Your task to perform on an android device: delete browsing data in the chrome app Image 0: 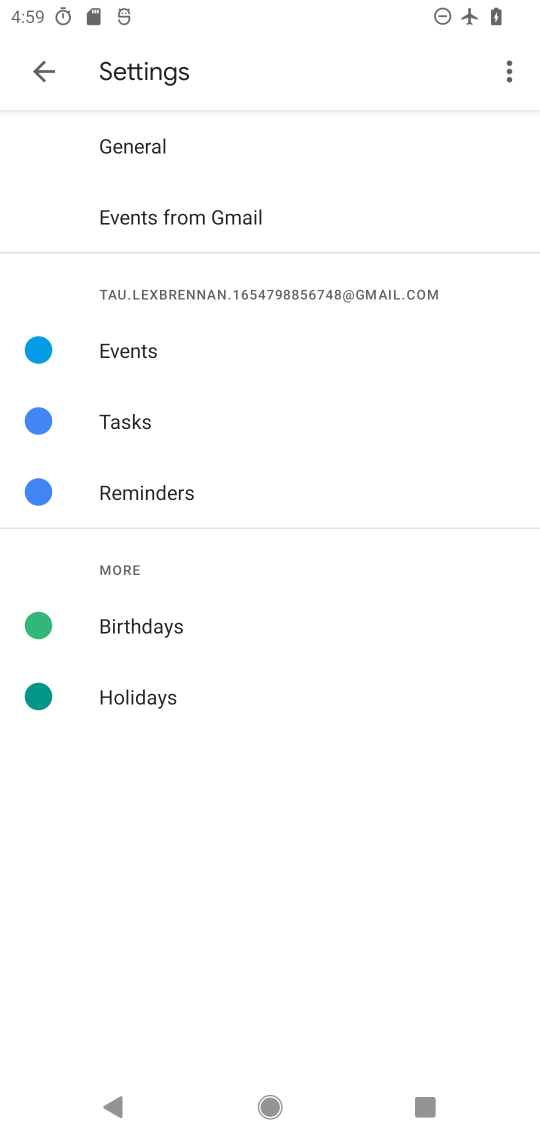
Step 0: press home button
Your task to perform on an android device: delete browsing data in the chrome app Image 1: 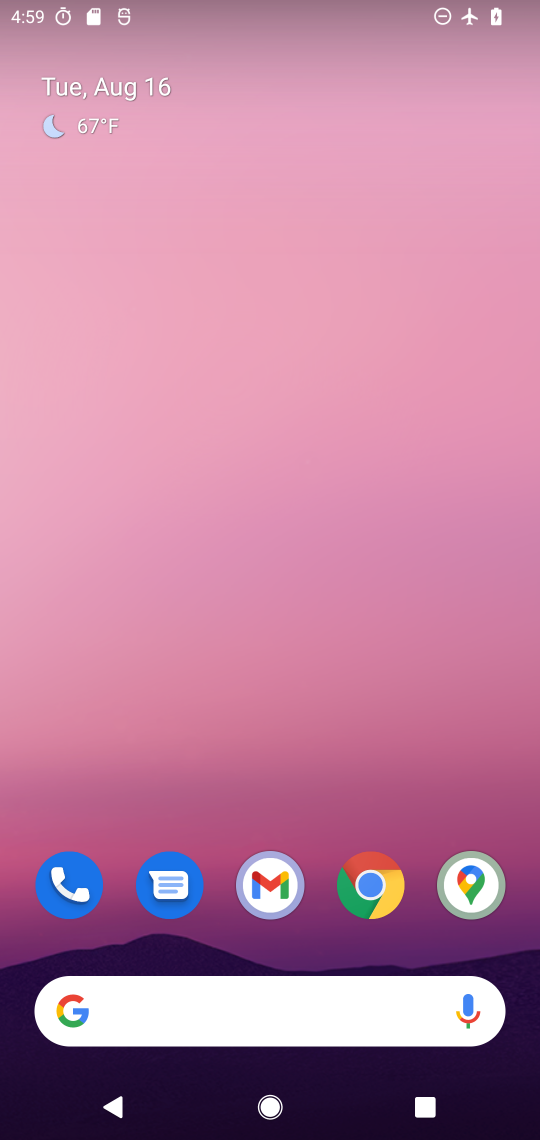
Step 1: drag from (368, 963) to (128, 8)
Your task to perform on an android device: delete browsing data in the chrome app Image 2: 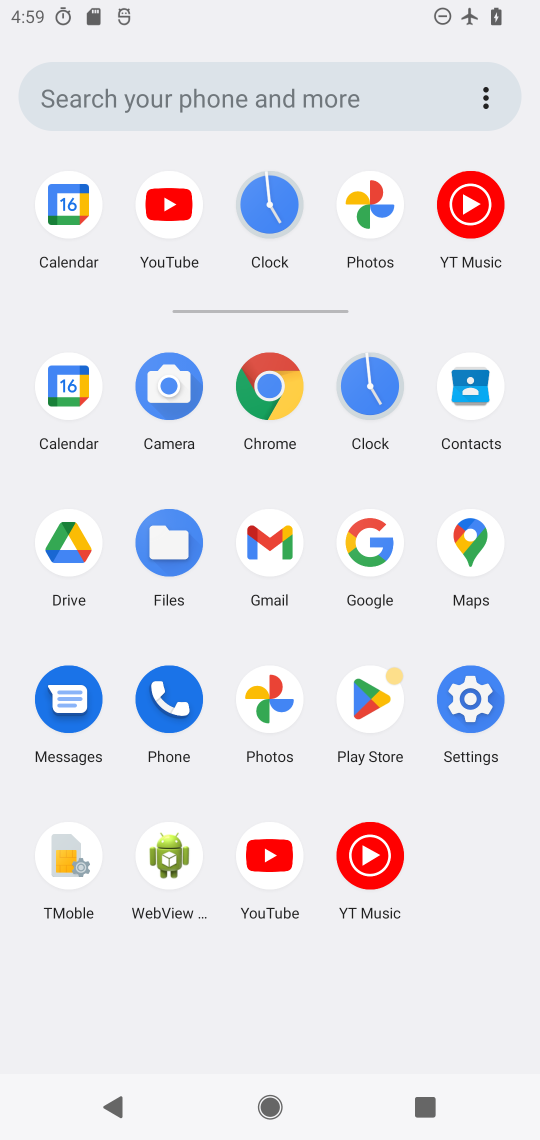
Step 2: click (261, 391)
Your task to perform on an android device: delete browsing data in the chrome app Image 3: 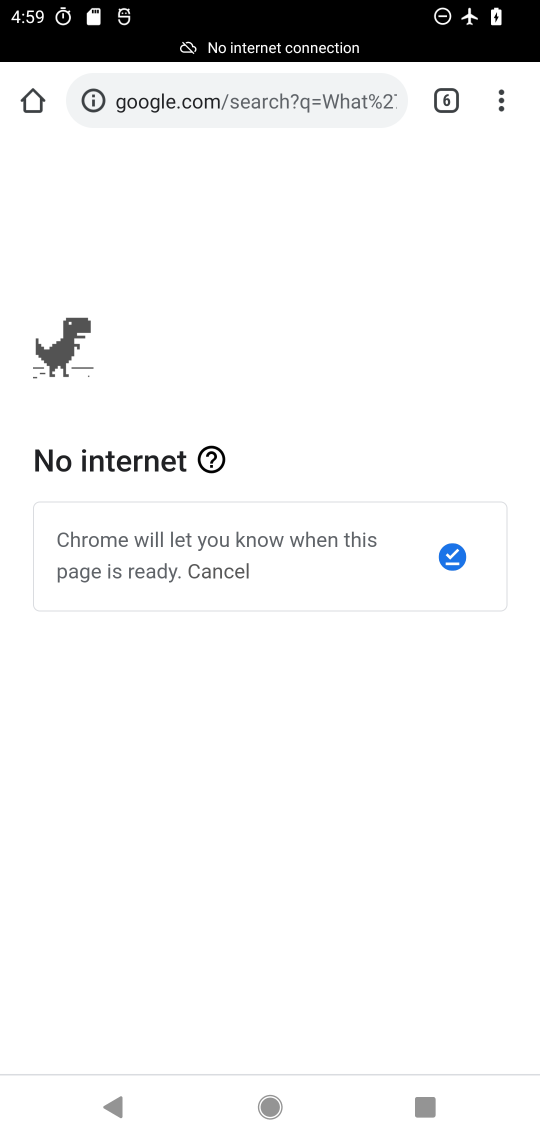
Step 3: click (524, 98)
Your task to perform on an android device: delete browsing data in the chrome app Image 4: 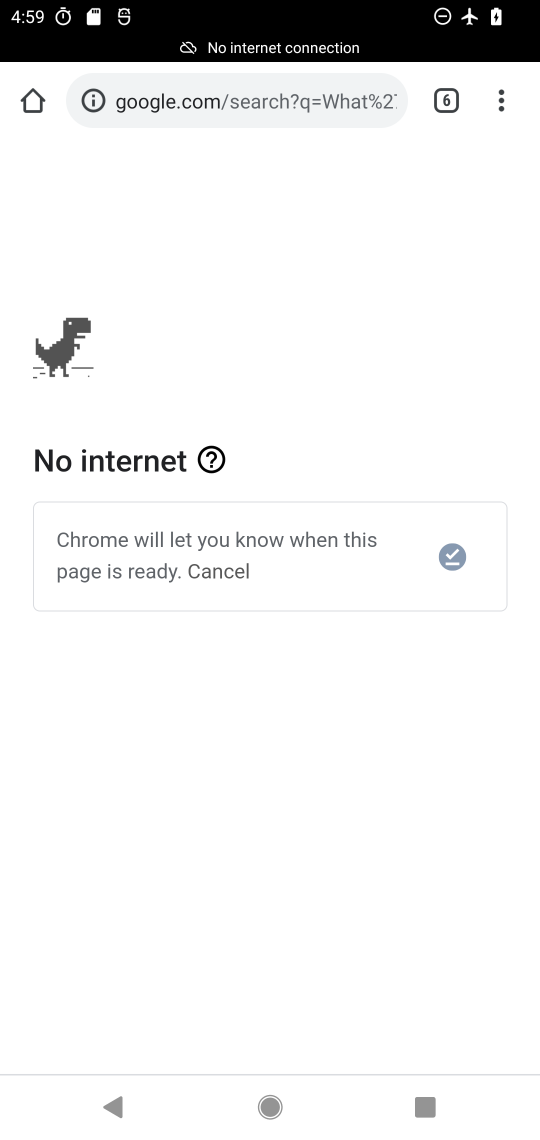
Step 4: click (505, 89)
Your task to perform on an android device: delete browsing data in the chrome app Image 5: 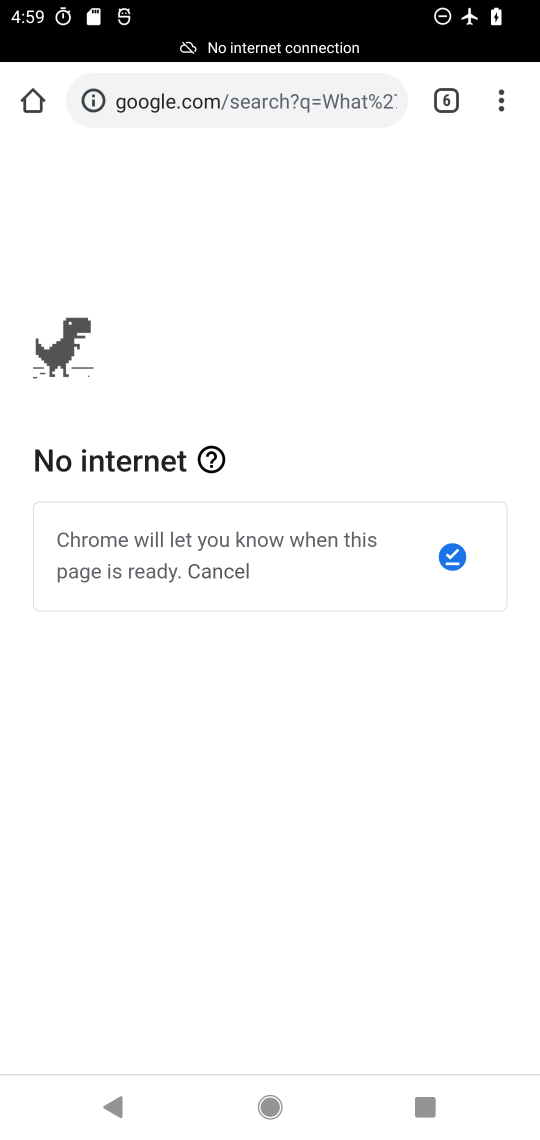
Step 5: click (505, 89)
Your task to perform on an android device: delete browsing data in the chrome app Image 6: 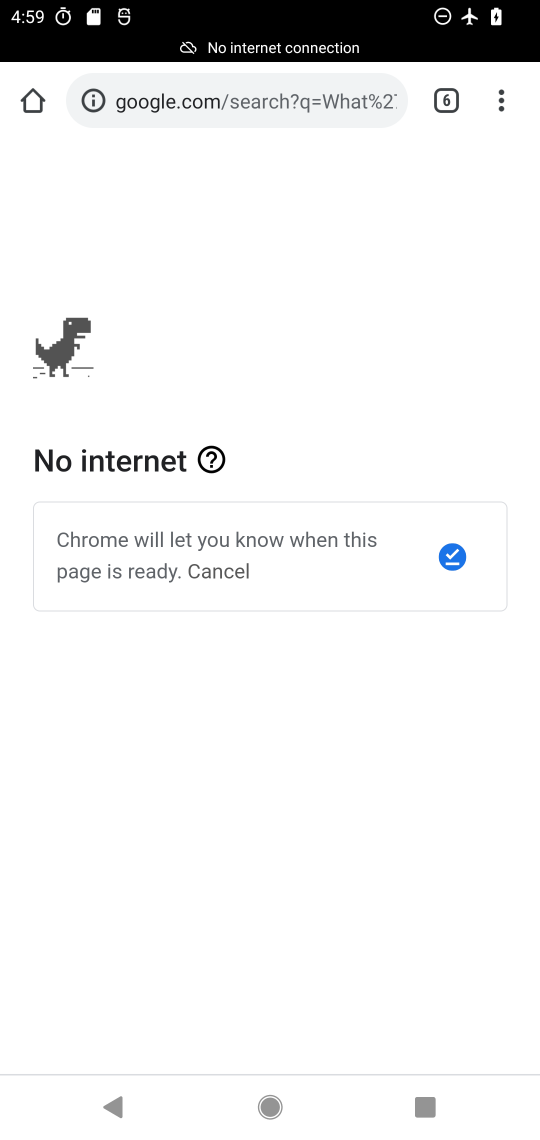
Step 6: click (511, 85)
Your task to perform on an android device: delete browsing data in the chrome app Image 7: 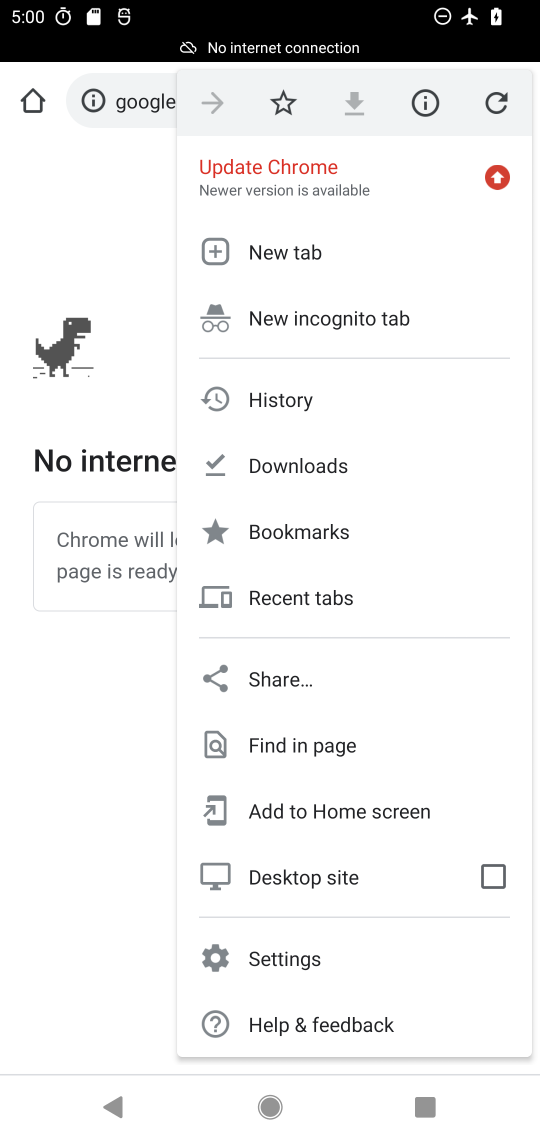
Step 7: click (323, 962)
Your task to perform on an android device: delete browsing data in the chrome app Image 8: 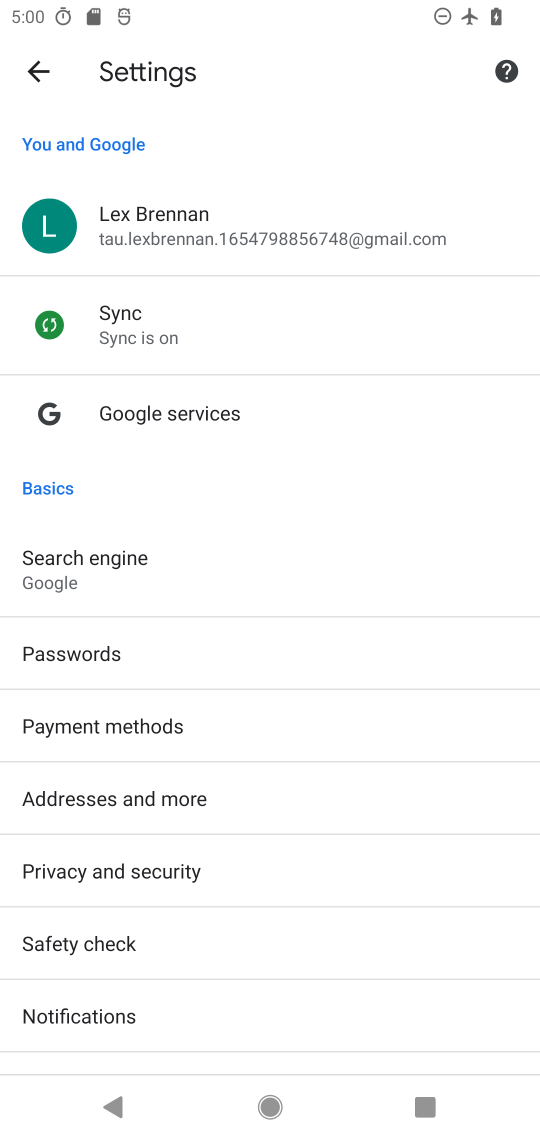
Step 8: drag from (164, 1003) to (252, 224)
Your task to perform on an android device: delete browsing data in the chrome app Image 9: 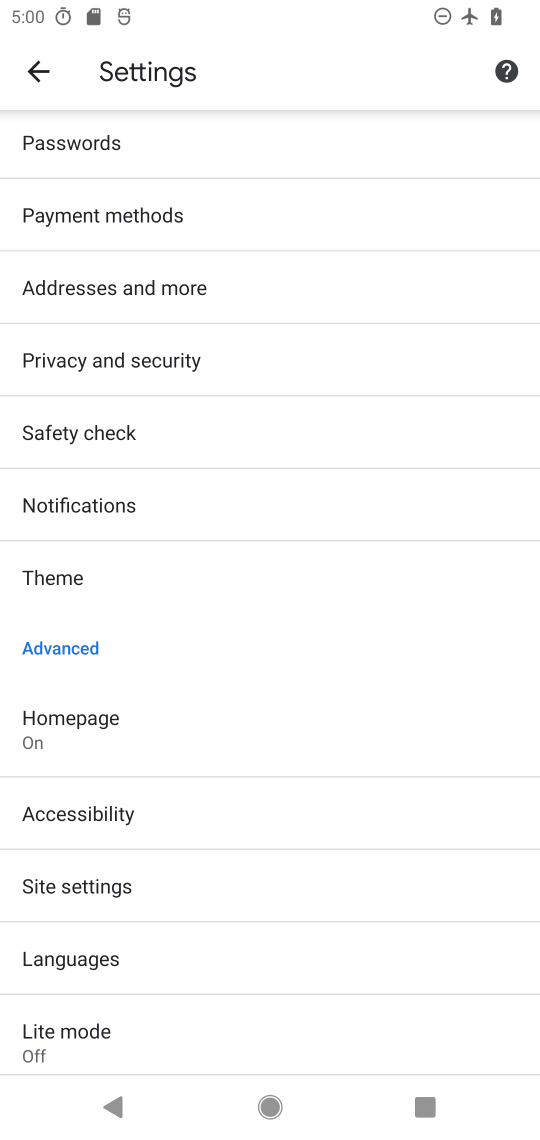
Step 9: drag from (280, 267) to (273, 599)
Your task to perform on an android device: delete browsing data in the chrome app Image 10: 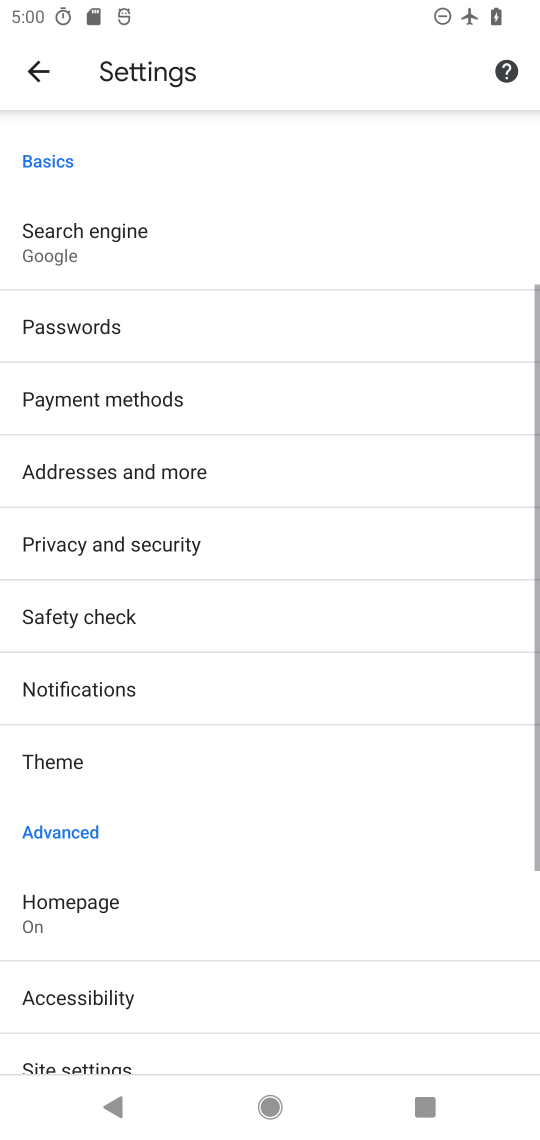
Step 10: click (245, 543)
Your task to perform on an android device: delete browsing data in the chrome app Image 11: 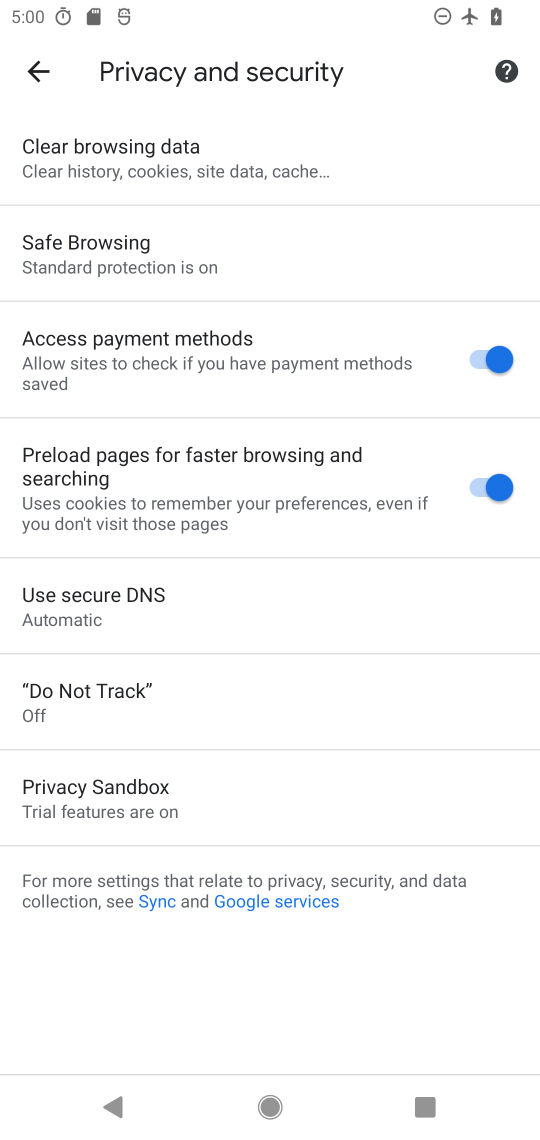
Step 11: click (264, 153)
Your task to perform on an android device: delete browsing data in the chrome app Image 12: 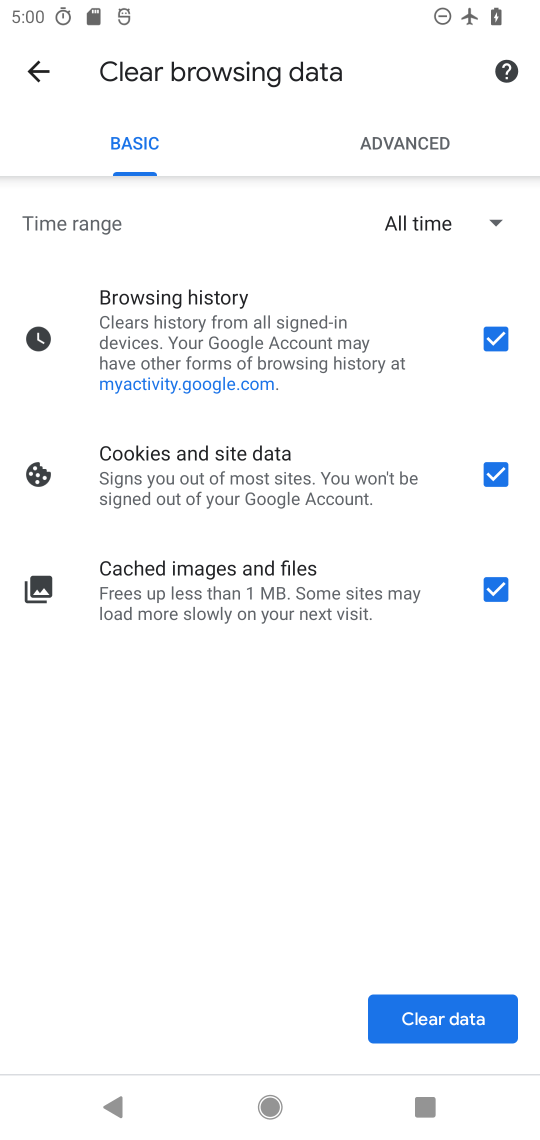
Step 12: click (394, 1003)
Your task to perform on an android device: delete browsing data in the chrome app Image 13: 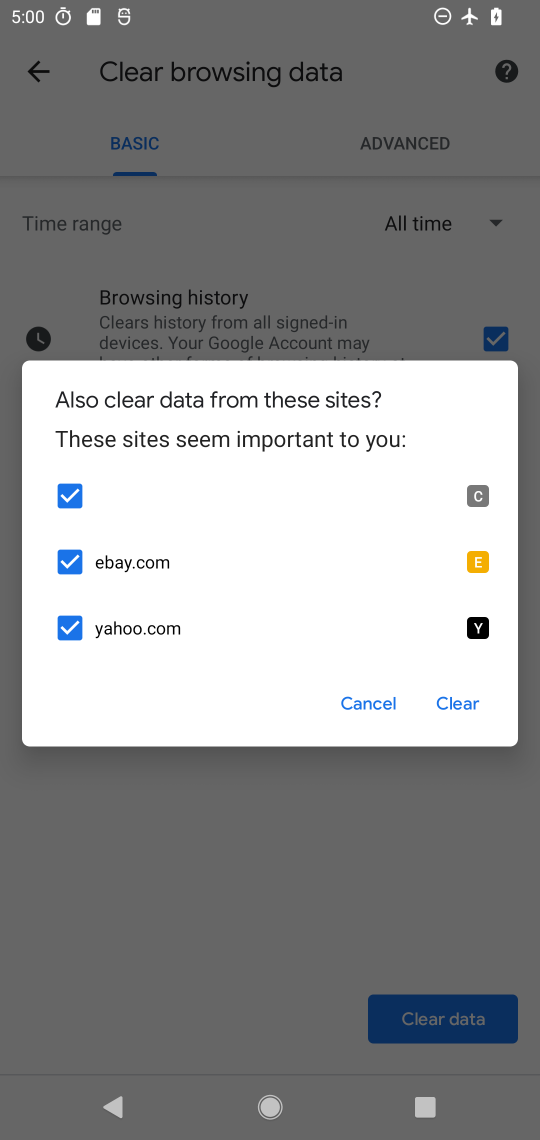
Step 13: click (469, 707)
Your task to perform on an android device: delete browsing data in the chrome app Image 14: 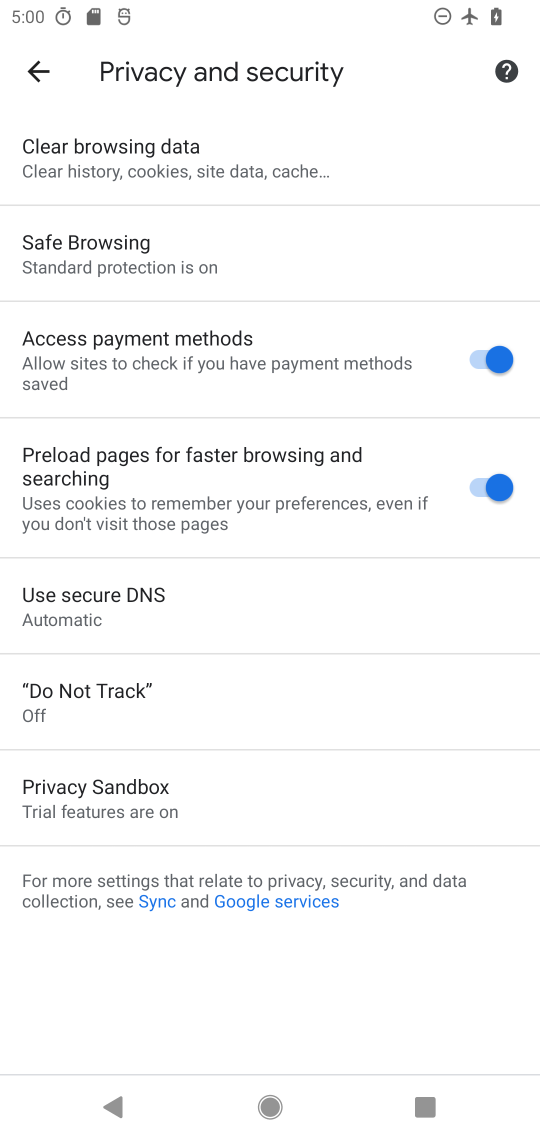
Step 14: task complete